Your task to perform on an android device: turn on the 12-hour format for clock Image 0: 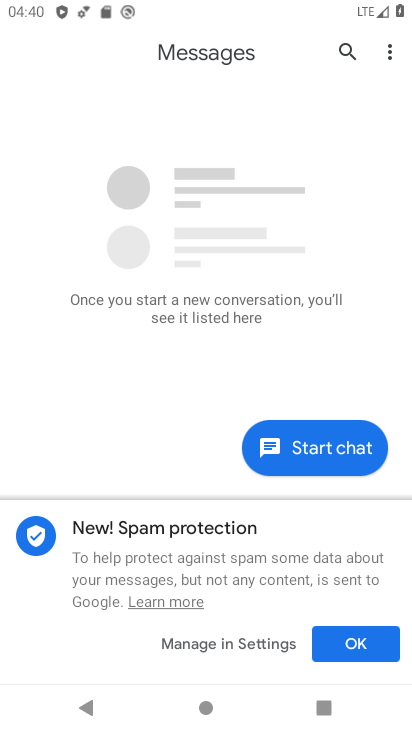
Step 0: press back button
Your task to perform on an android device: turn on the 12-hour format for clock Image 1: 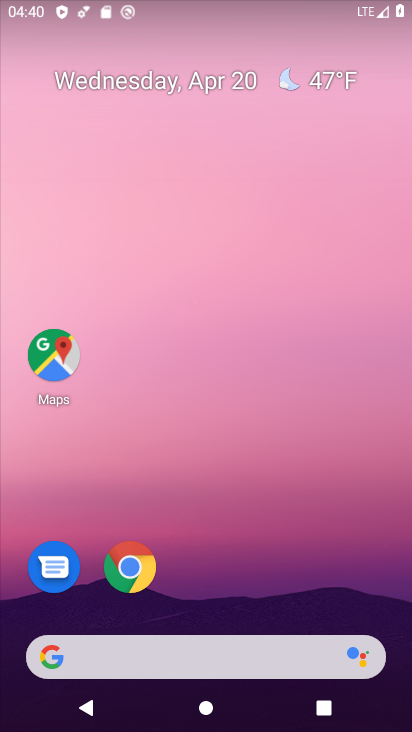
Step 1: drag from (301, 517) to (269, 85)
Your task to perform on an android device: turn on the 12-hour format for clock Image 2: 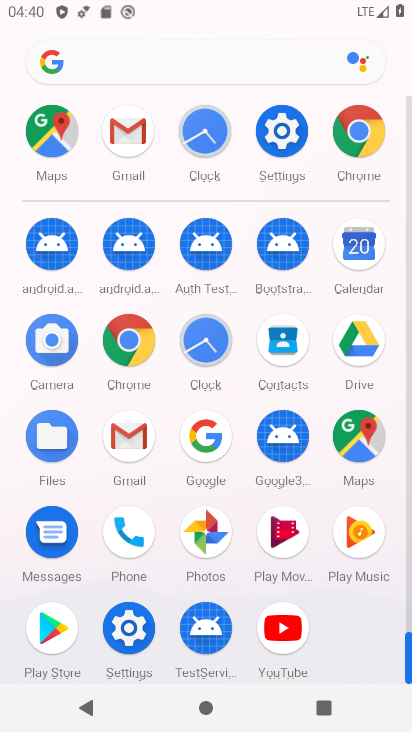
Step 2: click (204, 341)
Your task to perform on an android device: turn on the 12-hour format for clock Image 3: 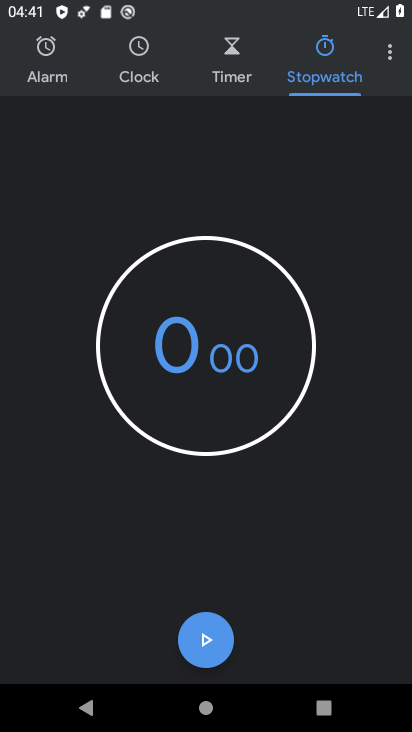
Step 3: click (387, 57)
Your task to perform on an android device: turn on the 12-hour format for clock Image 4: 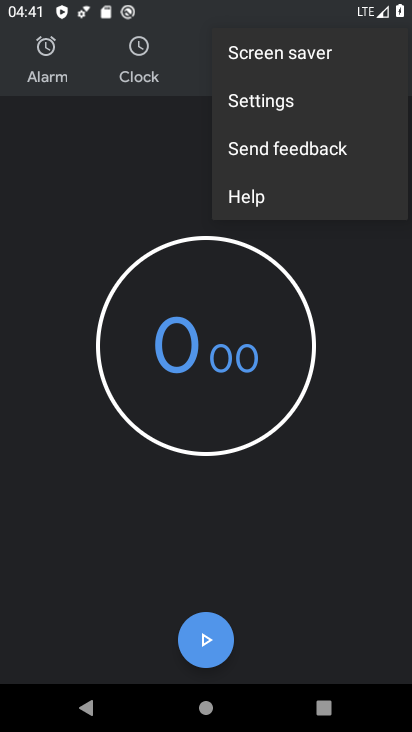
Step 4: click (280, 106)
Your task to perform on an android device: turn on the 12-hour format for clock Image 5: 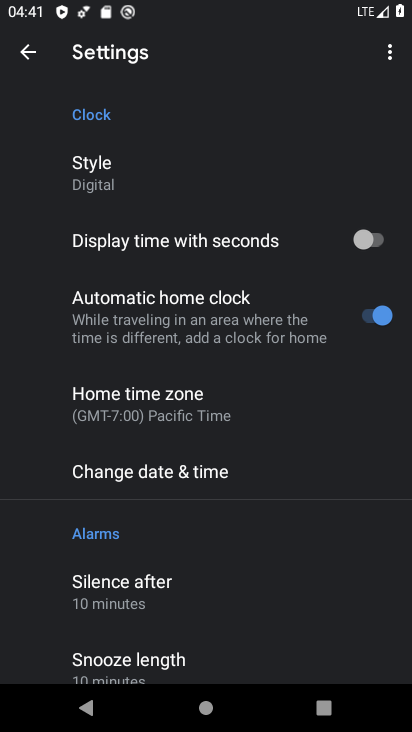
Step 5: drag from (221, 501) to (234, 159)
Your task to perform on an android device: turn on the 12-hour format for clock Image 6: 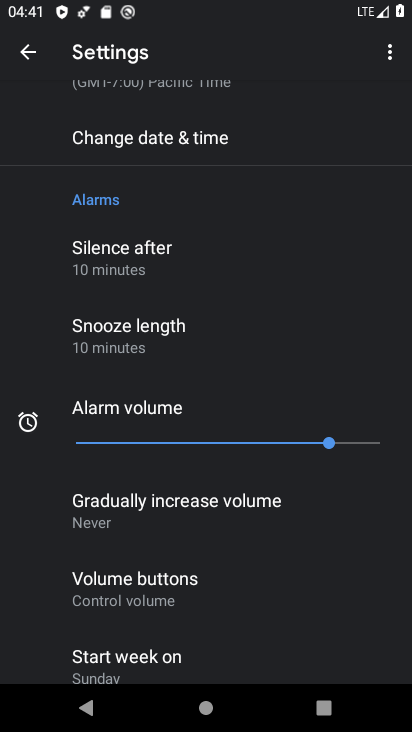
Step 6: click (210, 130)
Your task to perform on an android device: turn on the 12-hour format for clock Image 7: 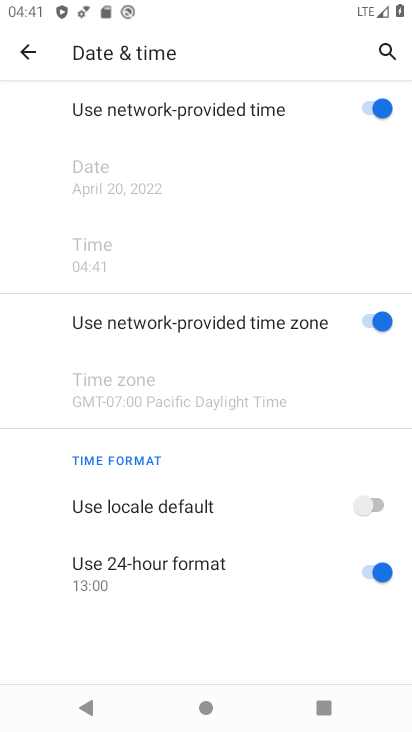
Step 7: click (371, 569)
Your task to perform on an android device: turn on the 12-hour format for clock Image 8: 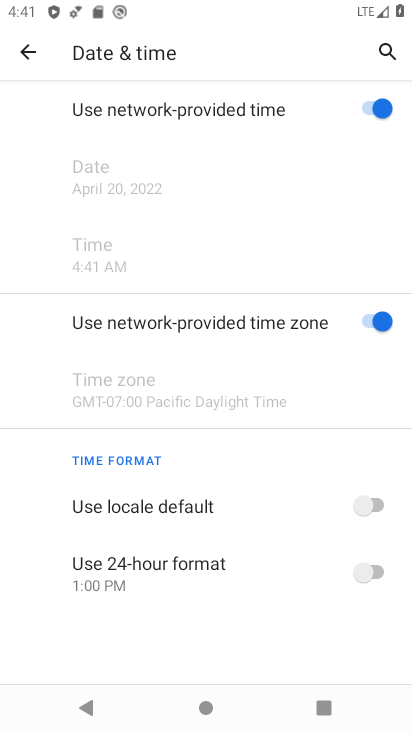
Step 8: task complete